Your task to perform on an android device: Go to eBay Image 0: 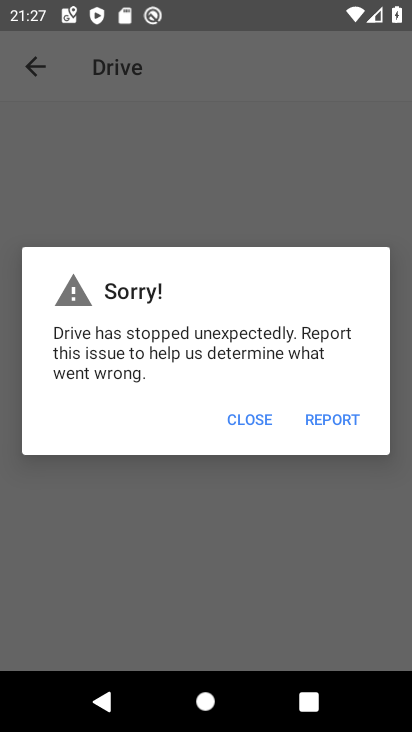
Step 0: press home button
Your task to perform on an android device: Go to eBay Image 1: 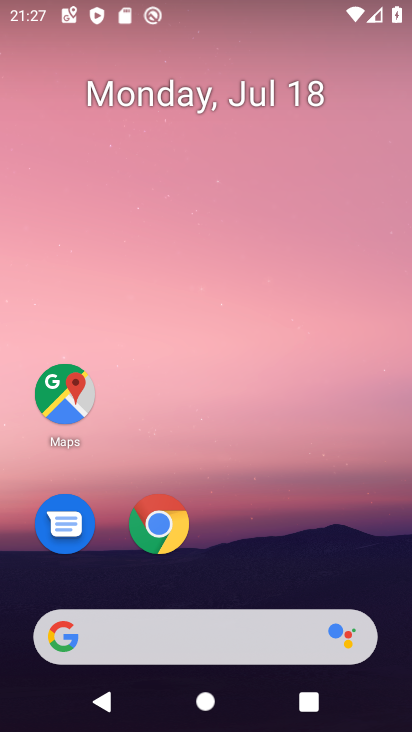
Step 1: click (173, 642)
Your task to perform on an android device: Go to eBay Image 2: 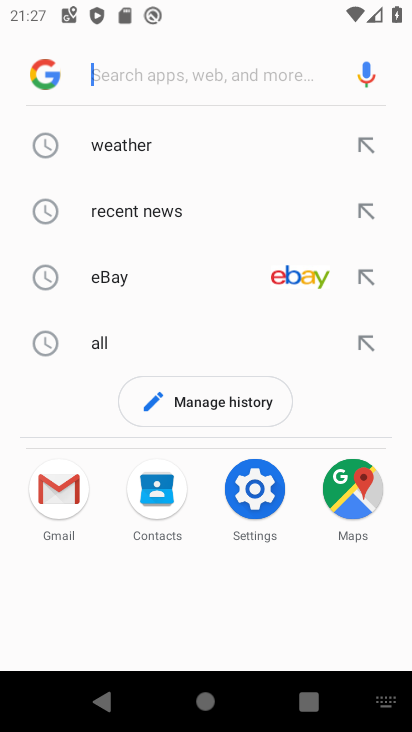
Step 2: click (310, 269)
Your task to perform on an android device: Go to eBay Image 3: 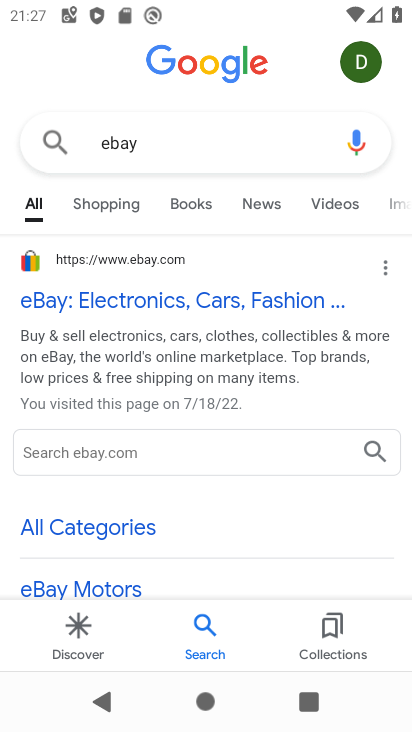
Step 3: click (44, 298)
Your task to perform on an android device: Go to eBay Image 4: 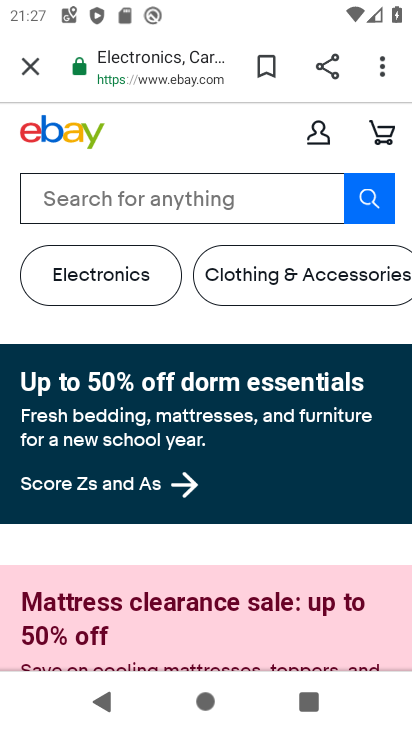
Step 4: task complete